Your task to perform on an android device: turn pop-ups off in chrome Image 0: 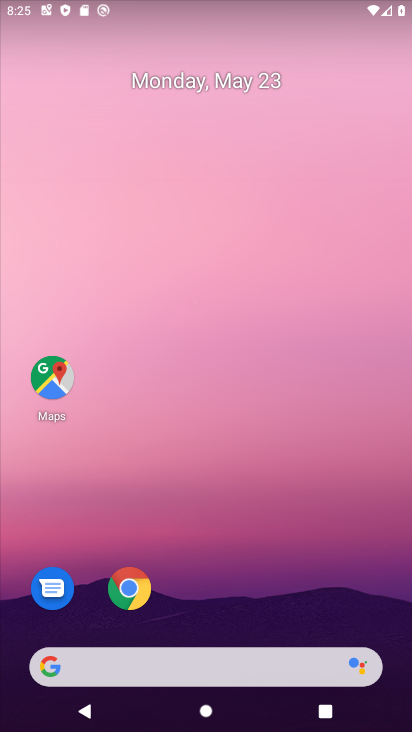
Step 0: click (139, 586)
Your task to perform on an android device: turn pop-ups off in chrome Image 1: 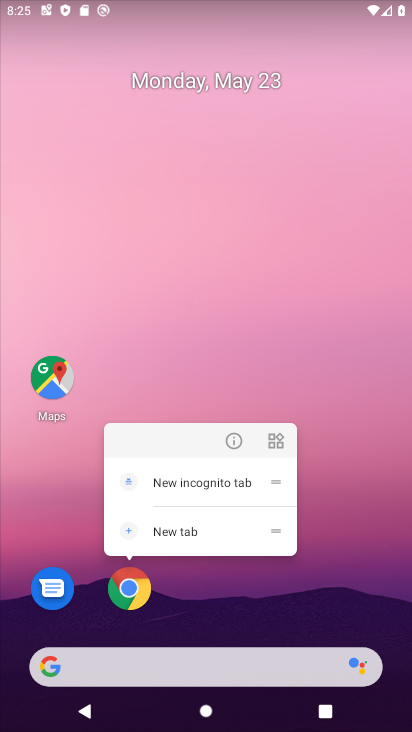
Step 1: click (227, 441)
Your task to perform on an android device: turn pop-ups off in chrome Image 2: 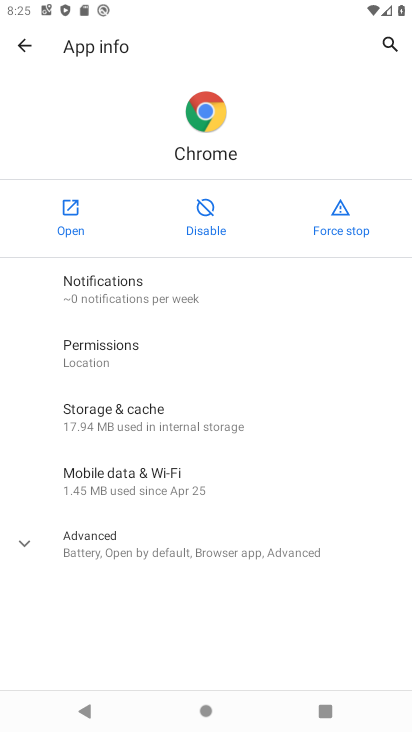
Step 2: press home button
Your task to perform on an android device: turn pop-ups off in chrome Image 3: 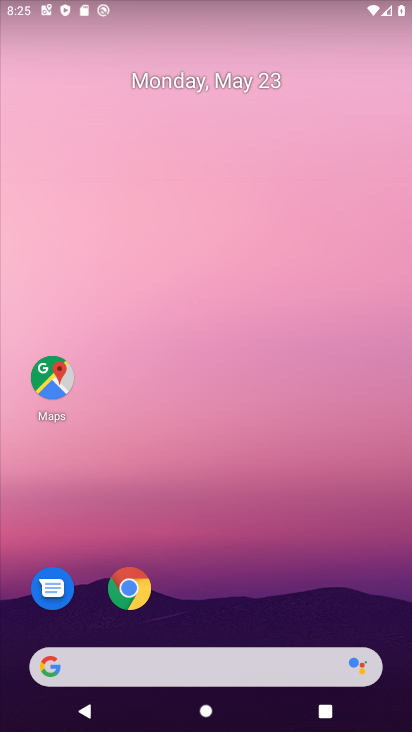
Step 3: click (138, 580)
Your task to perform on an android device: turn pop-ups off in chrome Image 4: 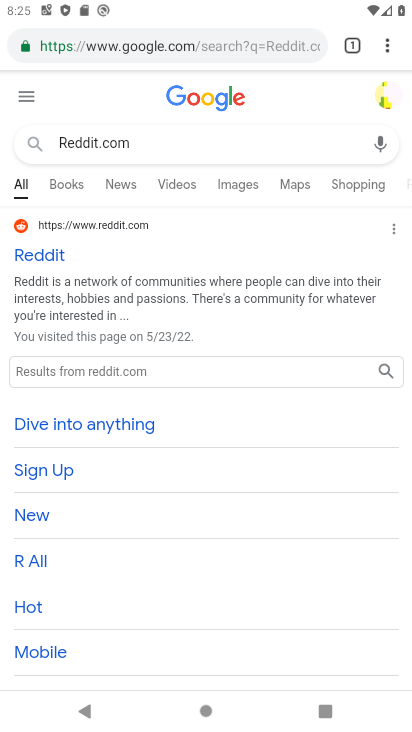
Step 4: click (386, 45)
Your task to perform on an android device: turn pop-ups off in chrome Image 5: 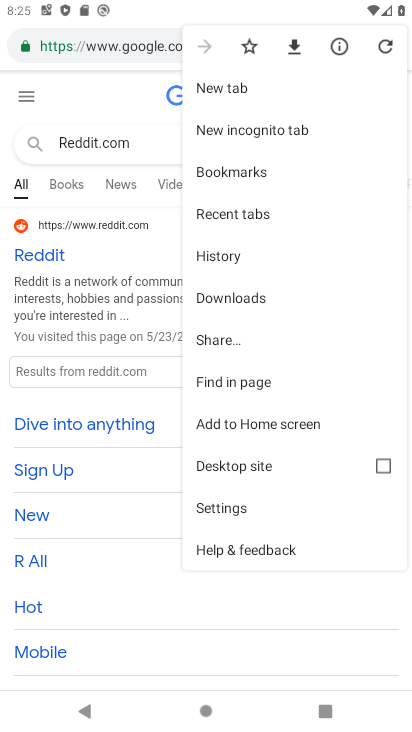
Step 5: click (220, 510)
Your task to perform on an android device: turn pop-ups off in chrome Image 6: 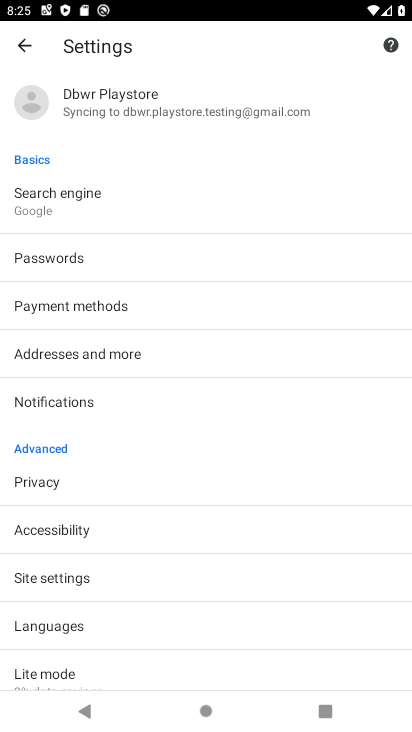
Step 6: click (62, 583)
Your task to perform on an android device: turn pop-ups off in chrome Image 7: 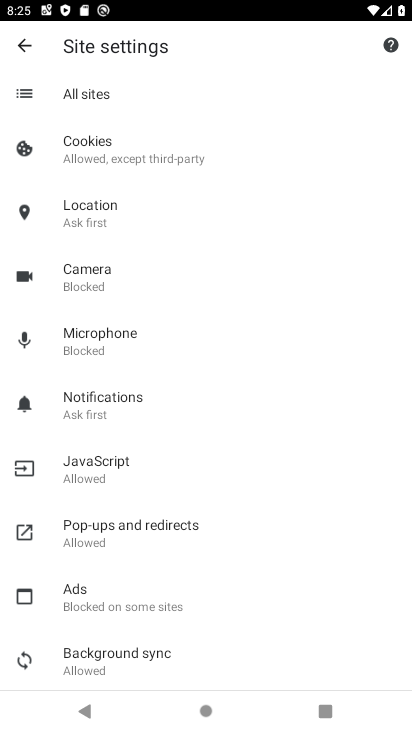
Step 7: click (90, 529)
Your task to perform on an android device: turn pop-ups off in chrome Image 8: 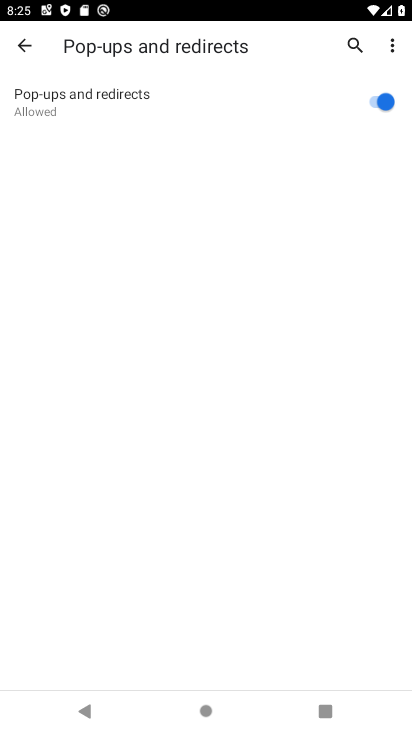
Step 8: click (371, 100)
Your task to perform on an android device: turn pop-ups off in chrome Image 9: 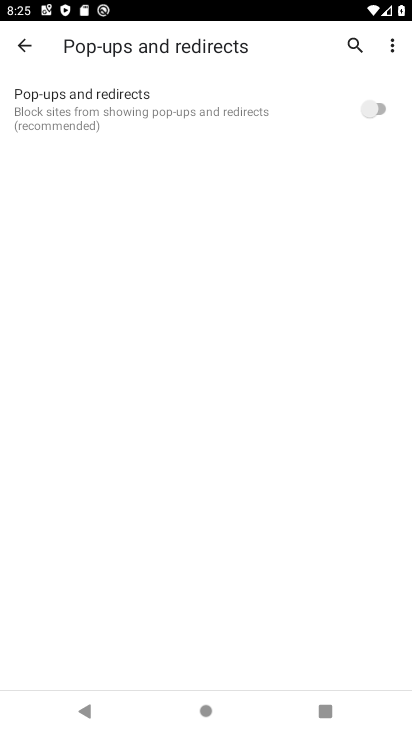
Step 9: task complete